Your task to perform on an android device: empty trash in google photos Image 0: 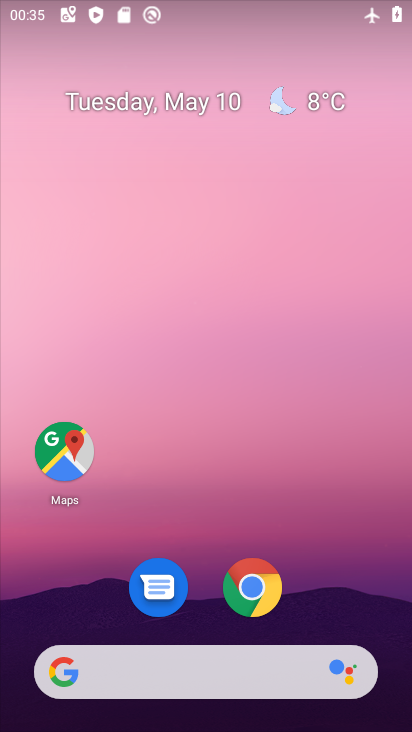
Step 0: drag from (400, 628) to (391, 321)
Your task to perform on an android device: empty trash in google photos Image 1: 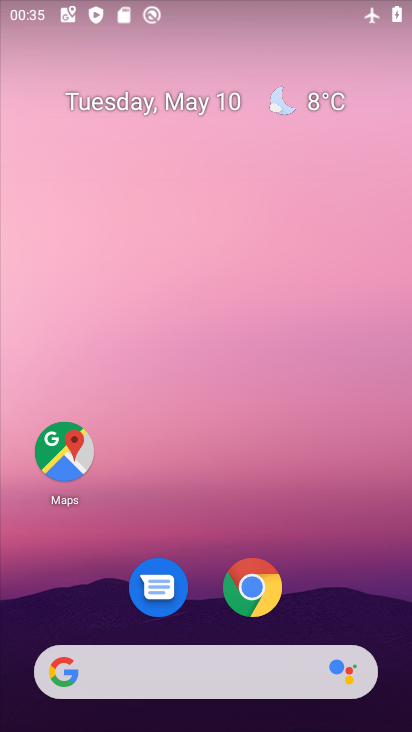
Step 1: drag from (382, 593) to (363, 169)
Your task to perform on an android device: empty trash in google photos Image 2: 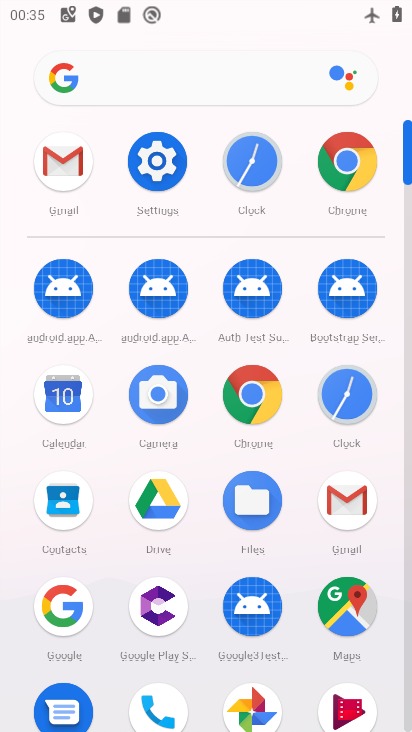
Step 2: click (262, 705)
Your task to perform on an android device: empty trash in google photos Image 3: 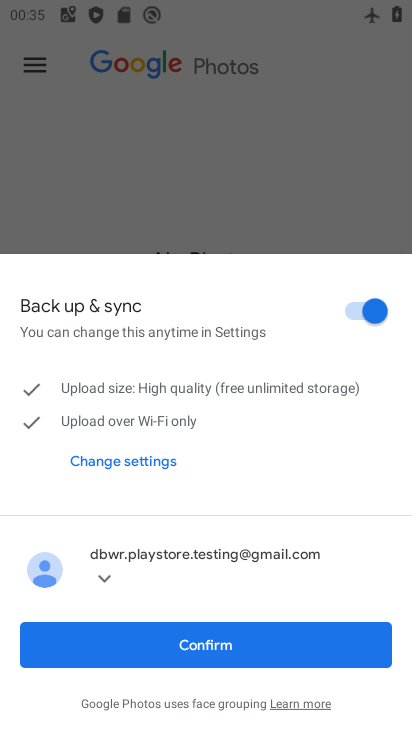
Step 3: click (237, 652)
Your task to perform on an android device: empty trash in google photos Image 4: 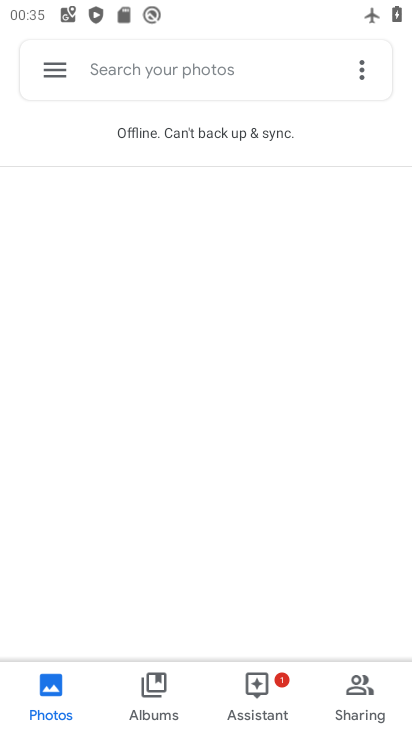
Step 4: click (55, 73)
Your task to perform on an android device: empty trash in google photos Image 5: 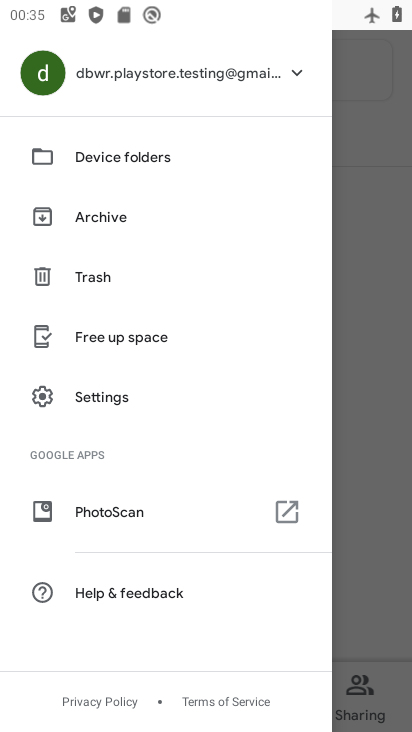
Step 5: click (85, 273)
Your task to perform on an android device: empty trash in google photos Image 6: 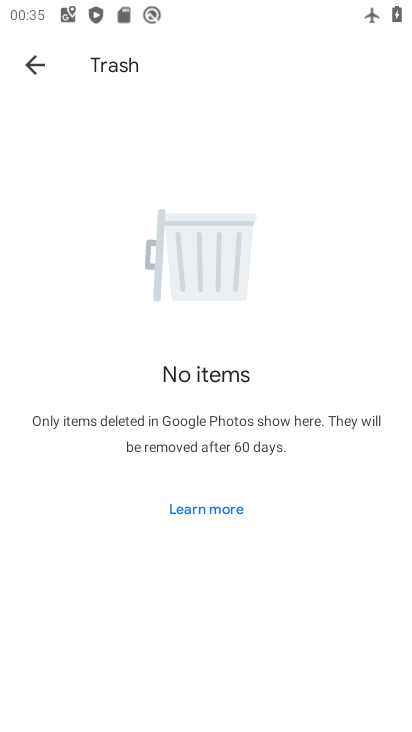
Step 6: task complete